Your task to perform on an android device: When is my next appointment? Image 0: 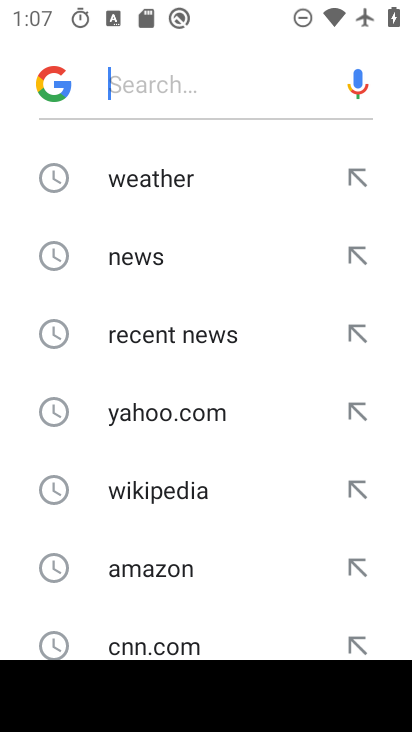
Step 0: press home button
Your task to perform on an android device: When is my next appointment? Image 1: 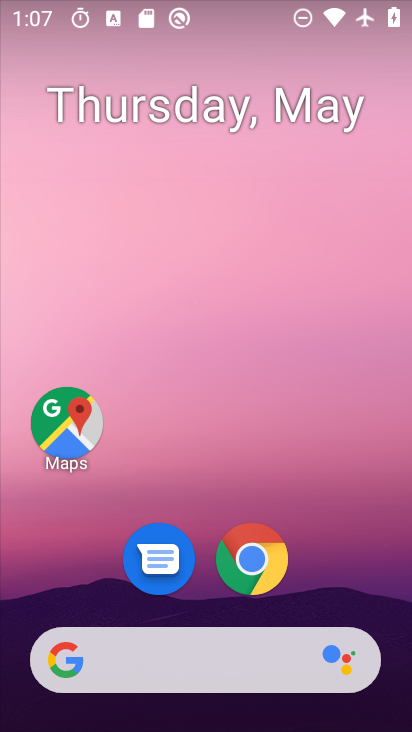
Step 1: drag from (274, 644) to (315, 238)
Your task to perform on an android device: When is my next appointment? Image 2: 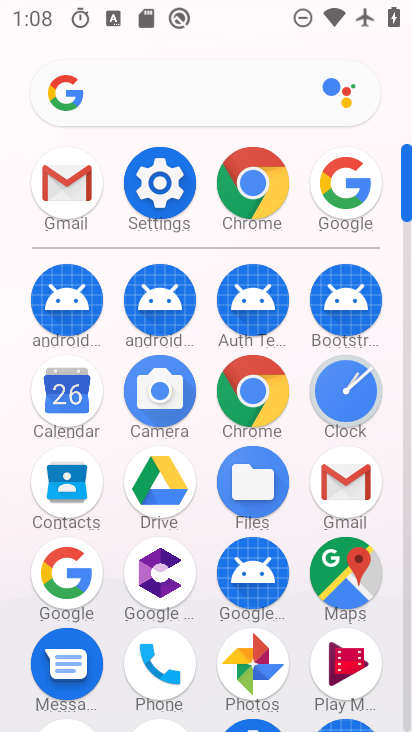
Step 2: click (87, 411)
Your task to perform on an android device: When is my next appointment? Image 3: 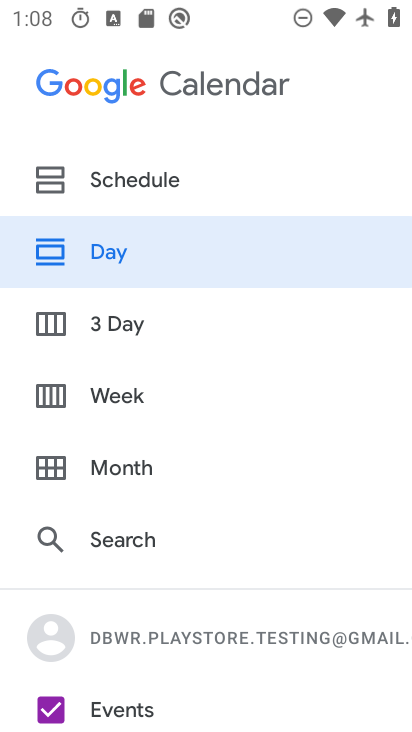
Step 3: press back button
Your task to perform on an android device: When is my next appointment? Image 4: 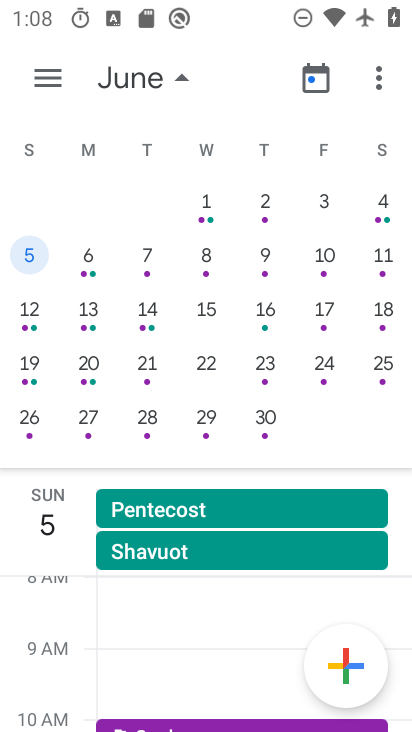
Step 4: click (54, 88)
Your task to perform on an android device: When is my next appointment? Image 5: 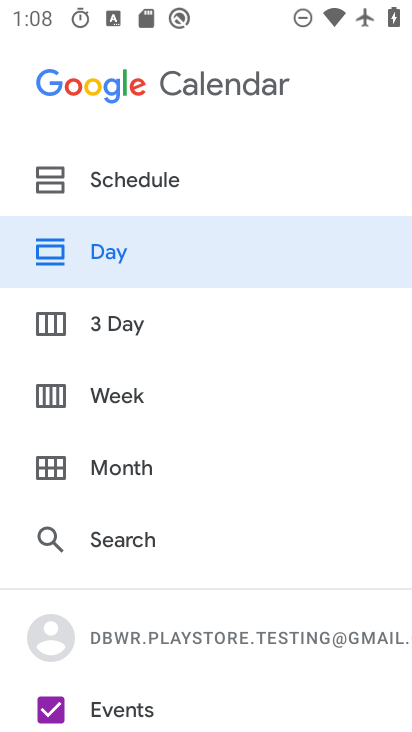
Step 5: drag from (165, 420) to (175, 215)
Your task to perform on an android device: When is my next appointment? Image 6: 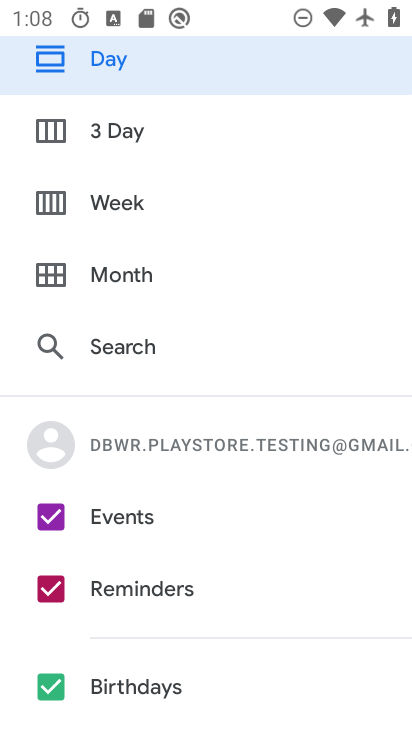
Step 6: click (109, 684)
Your task to perform on an android device: When is my next appointment? Image 7: 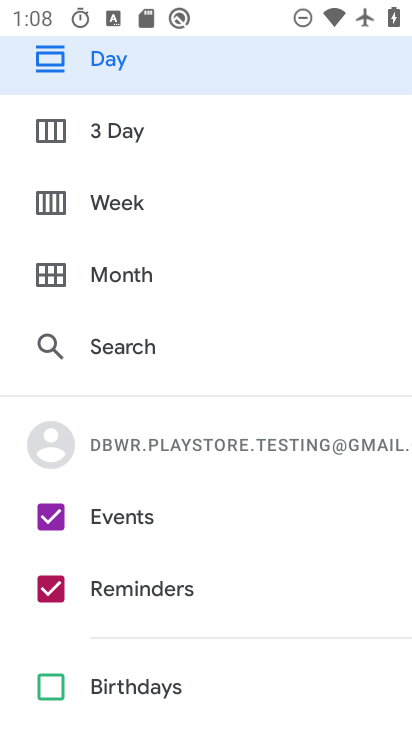
Step 7: drag from (109, 684) to (120, 468)
Your task to perform on an android device: When is my next appointment? Image 8: 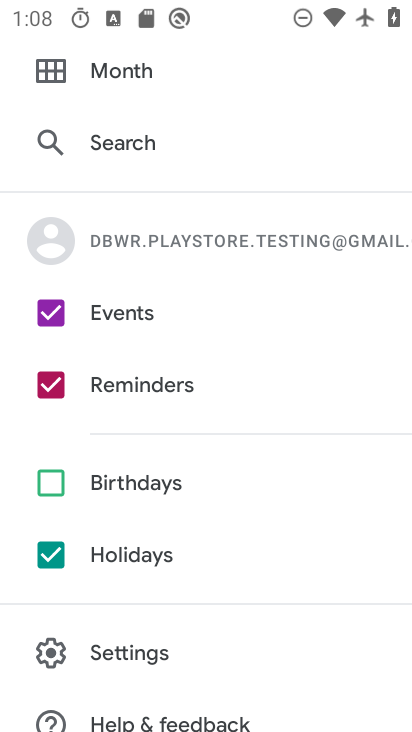
Step 8: click (133, 546)
Your task to perform on an android device: When is my next appointment? Image 9: 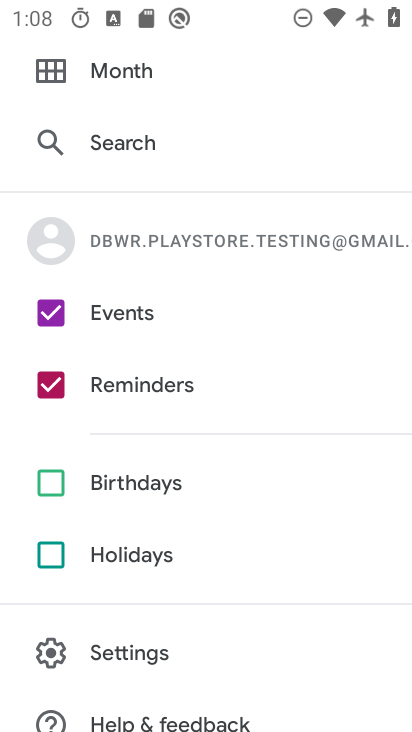
Step 9: task complete